Your task to perform on an android device: turn off sleep mode Image 0: 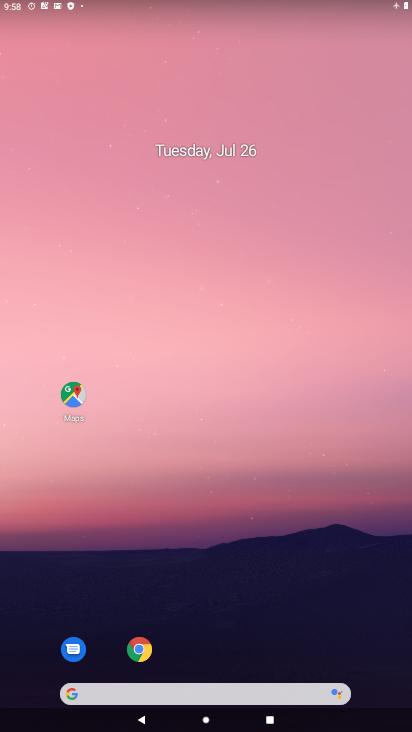
Step 0: drag from (189, 638) to (130, 164)
Your task to perform on an android device: turn off sleep mode Image 1: 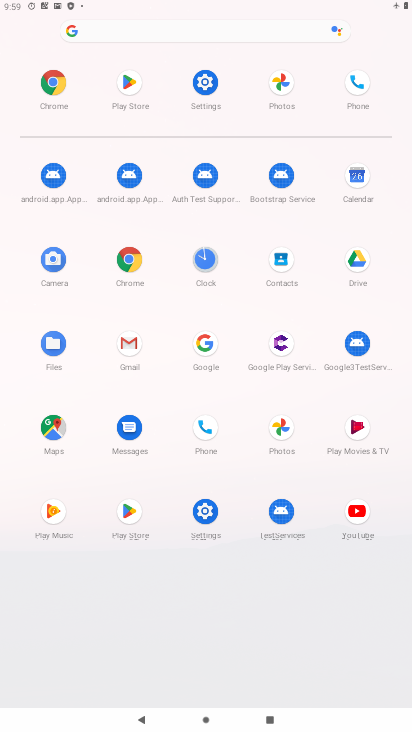
Step 1: click (206, 514)
Your task to perform on an android device: turn off sleep mode Image 2: 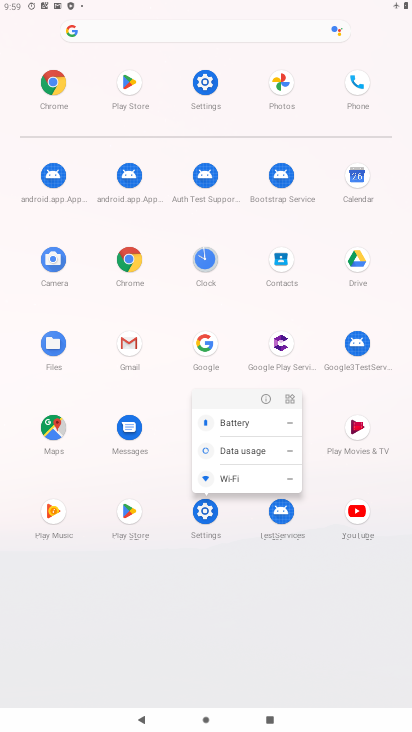
Step 2: click (267, 403)
Your task to perform on an android device: turn off sleep mode Image 3: 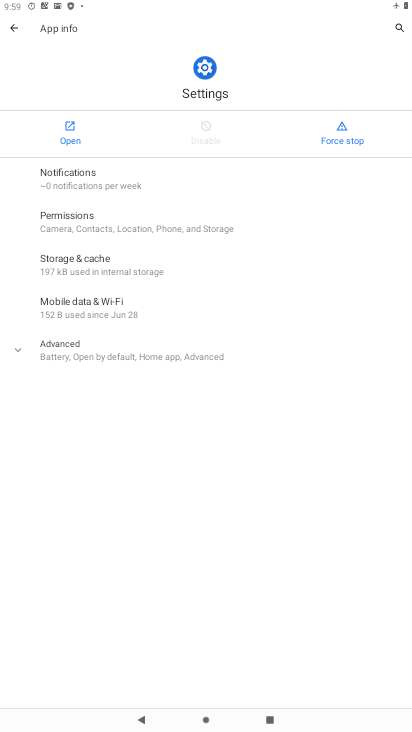
Step 3: click (78, 139)
Your task to perform on an android device: turn off sleep mode Image 4: 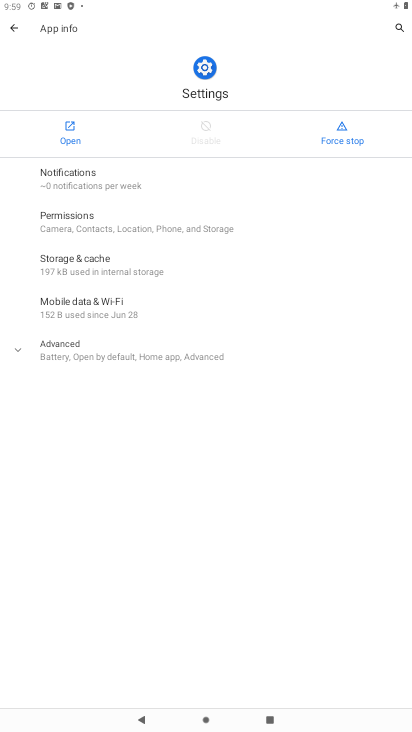
Step 4: click (77, 138)
Your task to perform on an android device: turn off sleep mode Image 5: 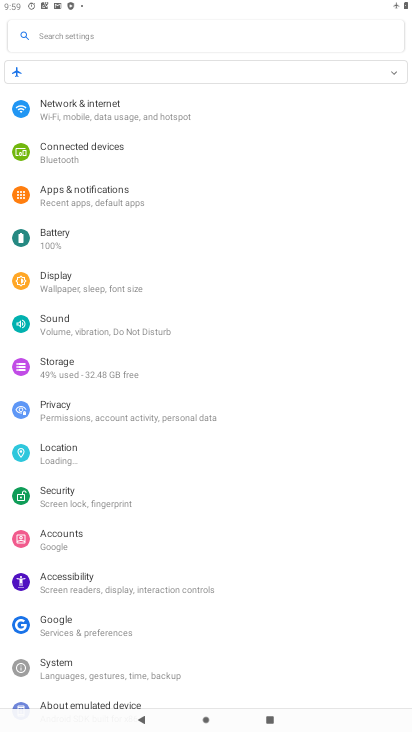
Step 5: drag from (160, 600) to (273, 28)
Your task to perform on an android device: turn off sleep mode Image 6: 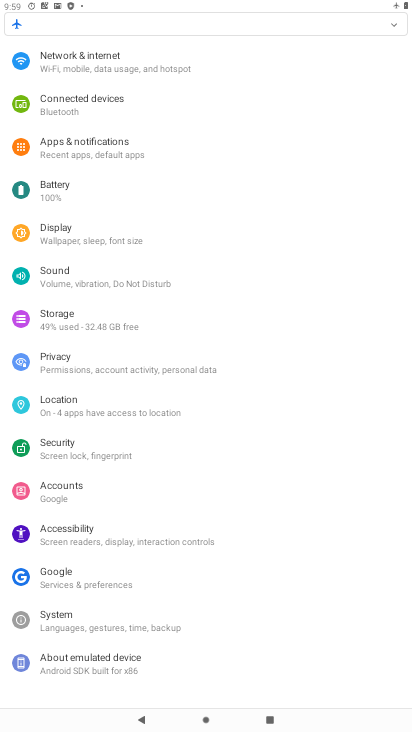
Step 6: click (63, 228)
Your task to perform on an android device: turn off sleep mode Image 7: 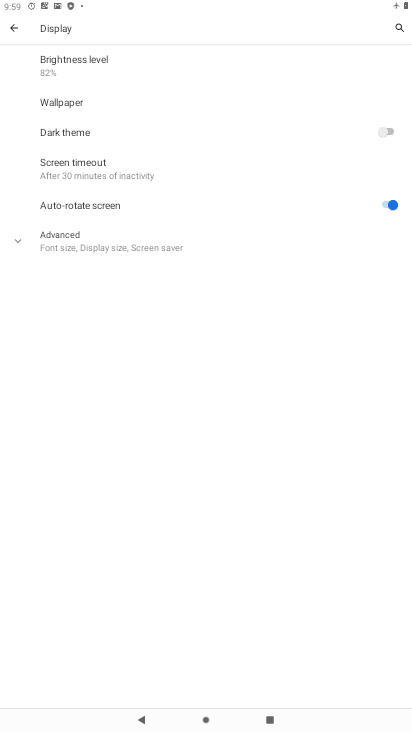
Step 7: click (120, 171)
Your task to perform on an android device: turn off sleep mode Image 8: 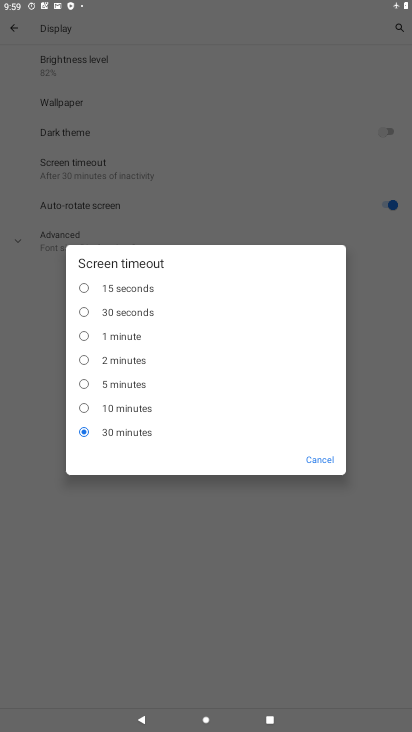
Step 8: task complete